Your task to perform on an android device: Open Yahoo.com Image 0: 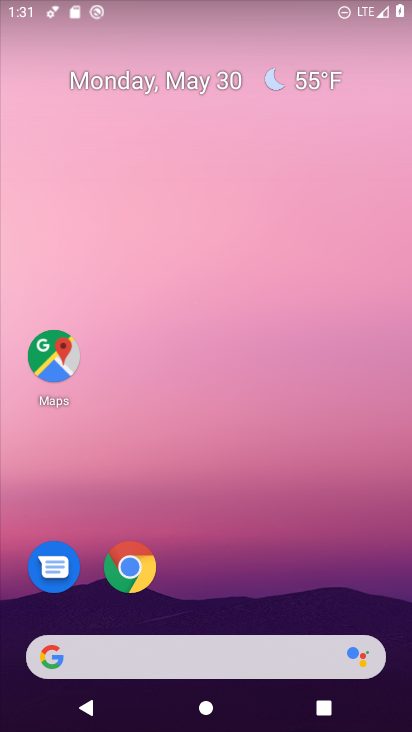
Step 0: click (128, 564)
Your task to perform on an android device: Open Yahoo.com Image 1: 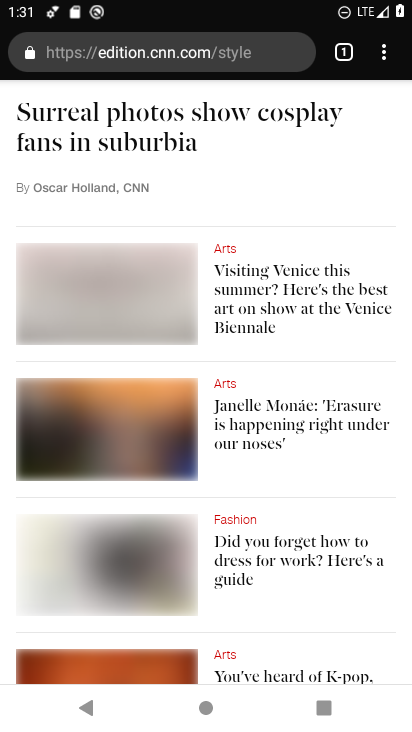
Step 1: click (339, 50)
Your task to perform on an android device: Open Yahoo.com Image 2: 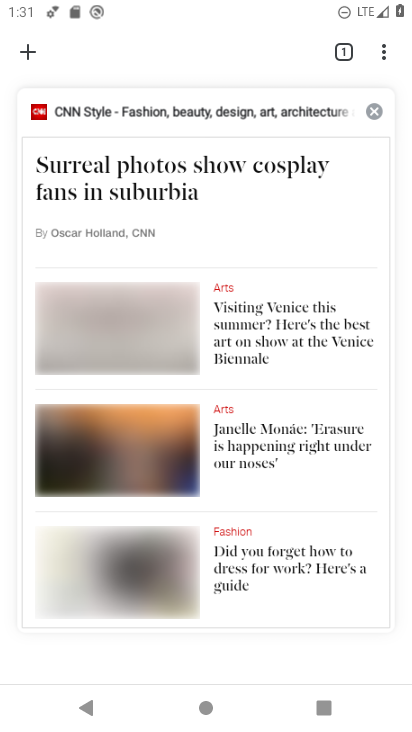
Step 2: click (376, 103)
Your task to perform on an android device: Open Yahoo.com Image 3: 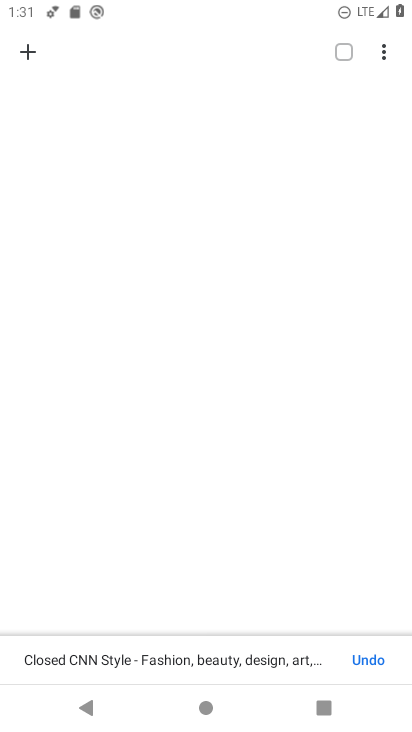
Step 3: click (30, 46)
Your task to perform on an android device: Open Yahoo.com Image 4: 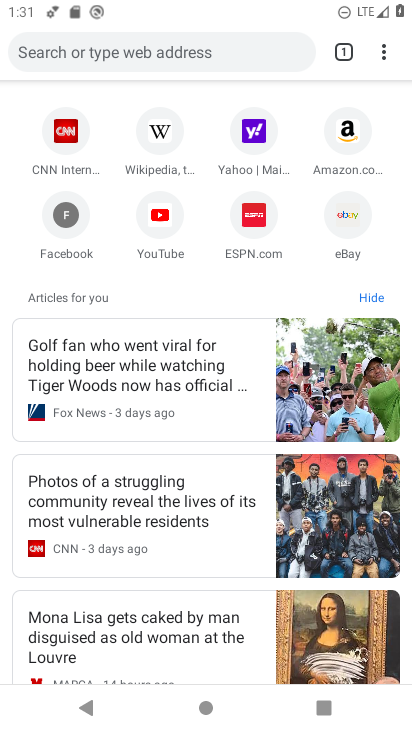
Step 4: click (257, 124)
Your task to perform on an android device: Open Yahoo.com Image 5: 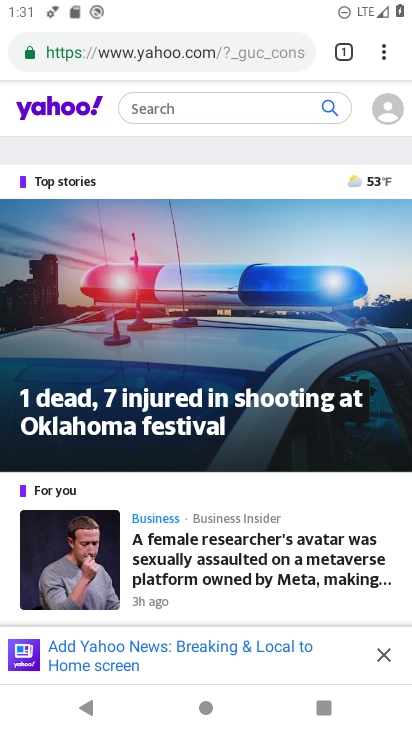
Step 5: click (260, 207)
Your task to perform on an android device: Open Yahoo.com Image 6: 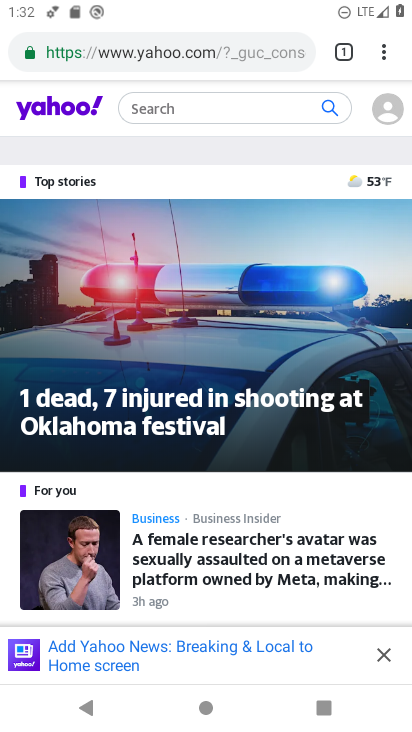
Step 6: click (382, 656)
Your task to perform on an android device: Open Yahoo.com Image 7: 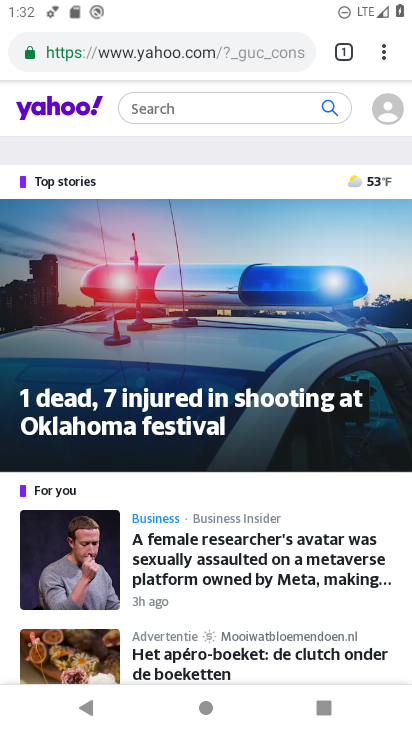
Step 7: task complete